Your task to perform on an android device: open sync settings in chrome Image 0: 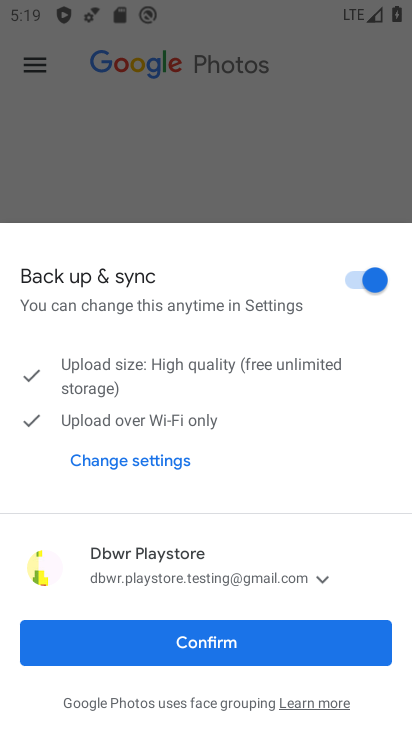
Step 0: press home button
Your task to perform on an android device: open sync settings in chrome Image 1: 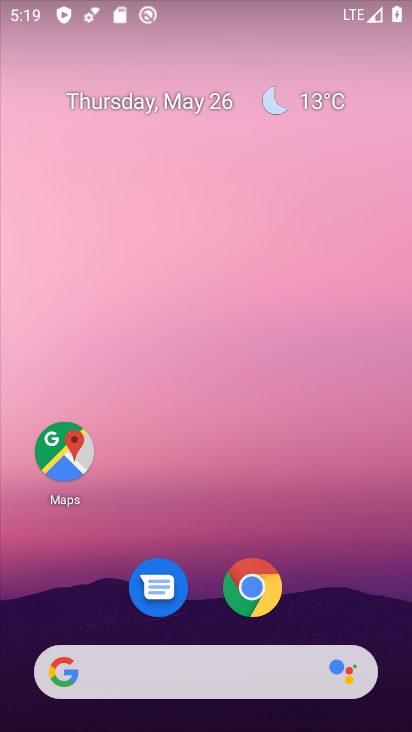
Step 1: drag from (187, 721) to (194, 115)
Your task to perform on an android device: open sync settings in chrome Image 2: 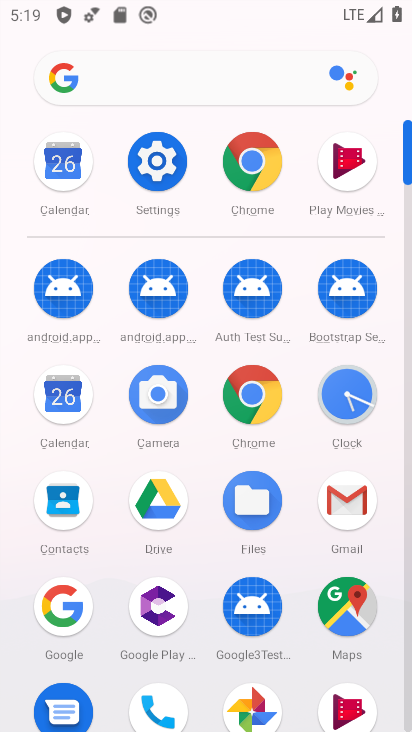
Step 2: click (250, 392)
Your task to perform on an android device: open sync settings in chrome Image 3: 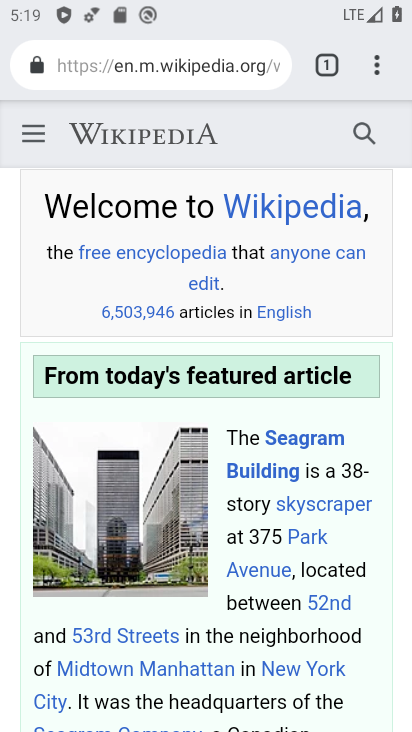
Step 3: click (378, 68)
Your task to perform on an android device: open sync settings in chrome Image 4: 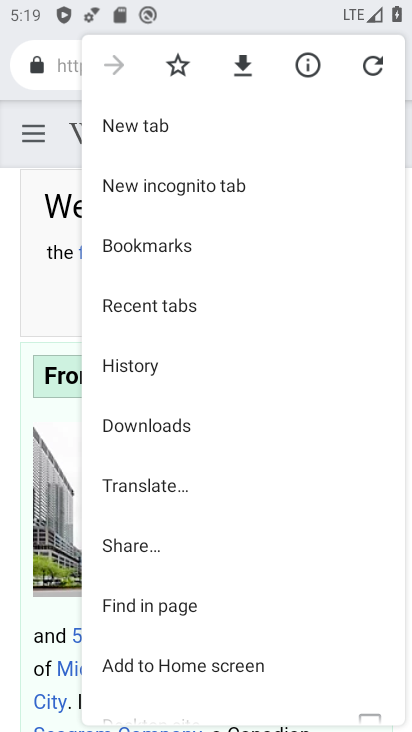
Step 4: drag from (185, 710) to (188, 246)
Your task to perform on an android device: open sync settings in chrome Image 5: 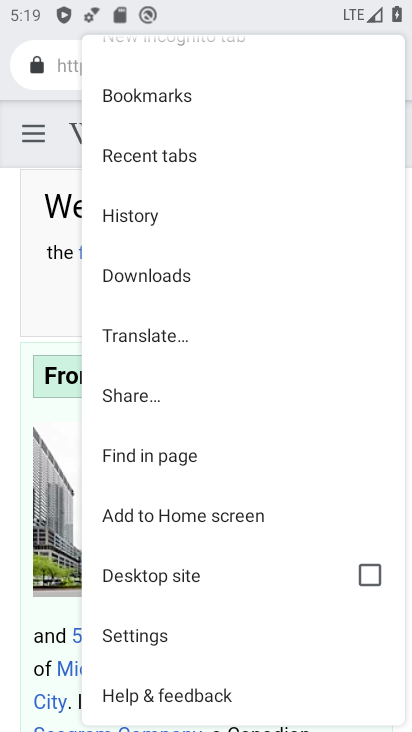
Step 5: click (136, 634)
Your task to perform on an android device: open sync settings in chrome Image 6: 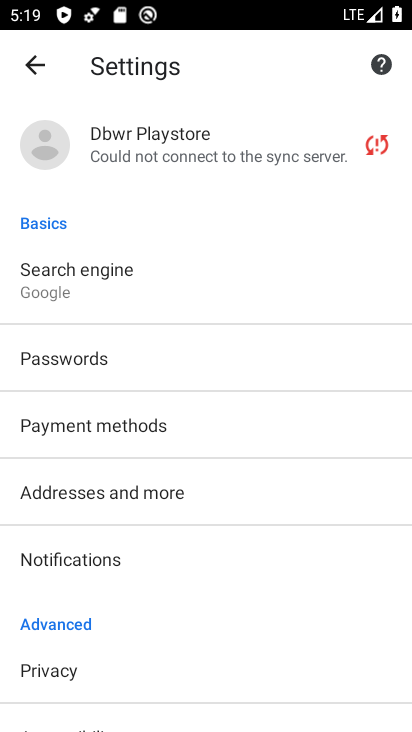
Step 6: drag from (157, 665) to (157, 256)
Your task to perform on an android device: open sync settings in chrome Image 7: 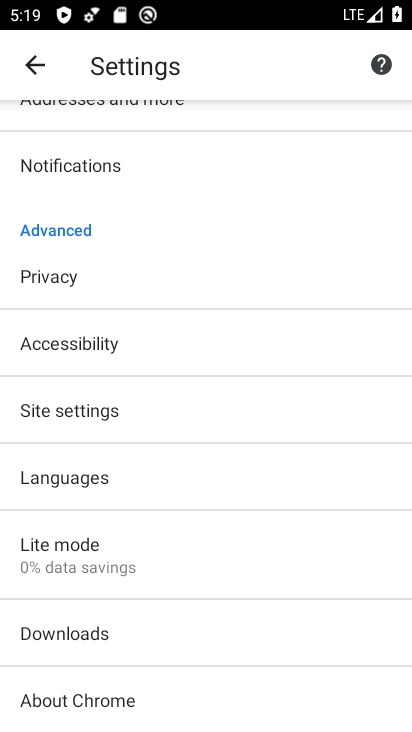
Step 7: click (101, 406)
Your task to perform on an android device: open sync settings in chrome Image 8: 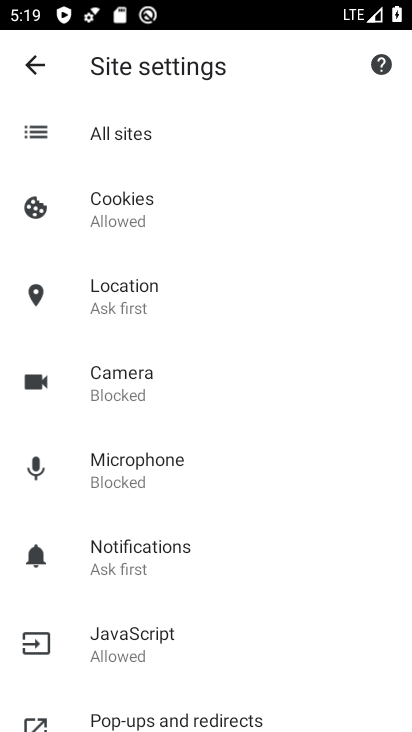
Step 8: drag from (169, 686) to (180, 225)
Your task to perform on an android device: open sync settings in chrome Image 9: 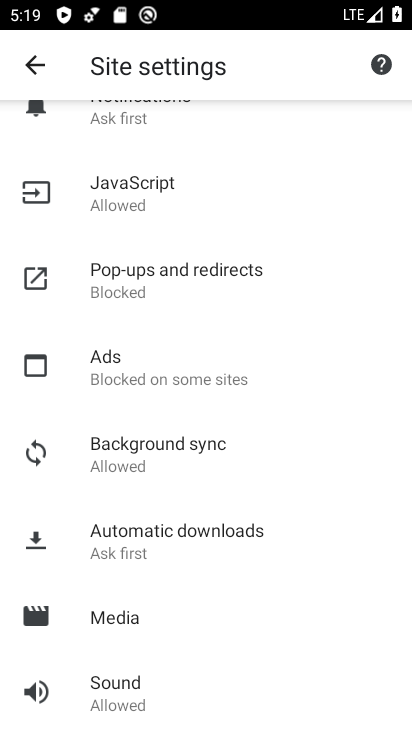
Step 9: drag from (168, 687) to (171, 329)
Your task to perform on an android device: open sync settings in chrome Image 10: 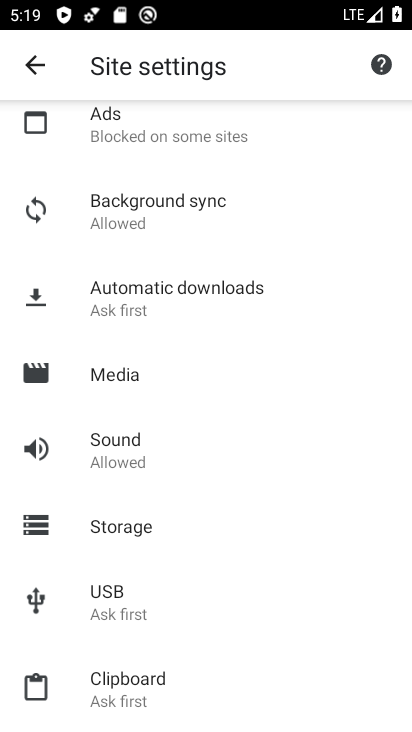
Step 10: drag from (173, 698) to (178, 304)
Your task to perform on an android device: open sync settings in chrome Image 11: 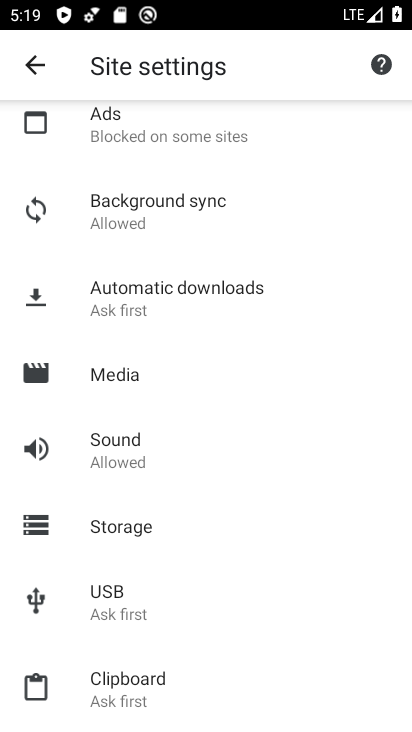
Step 11: click (137, 213)
Your task to perform on an android device: open sync settings in chrome Image 12: 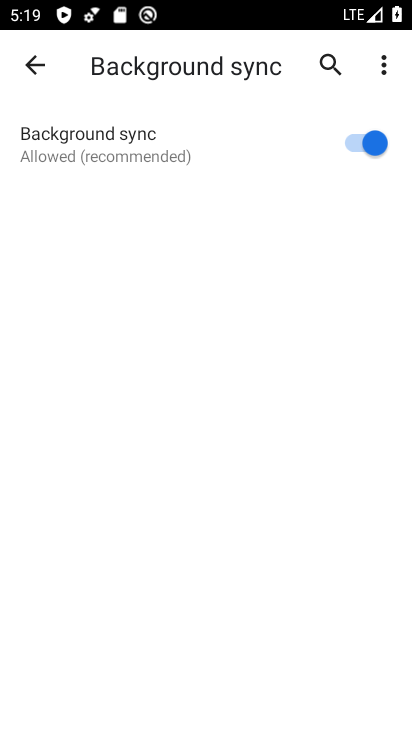
Step 12: task complete